Your task to perform on an android device: Open the web browser Image 0: 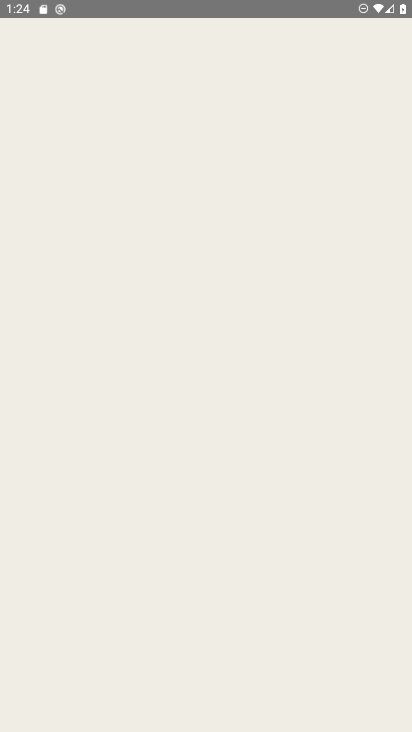
Step 0: click (384, 34)
Your task to perform on an android device: Open the web browser Image 1: 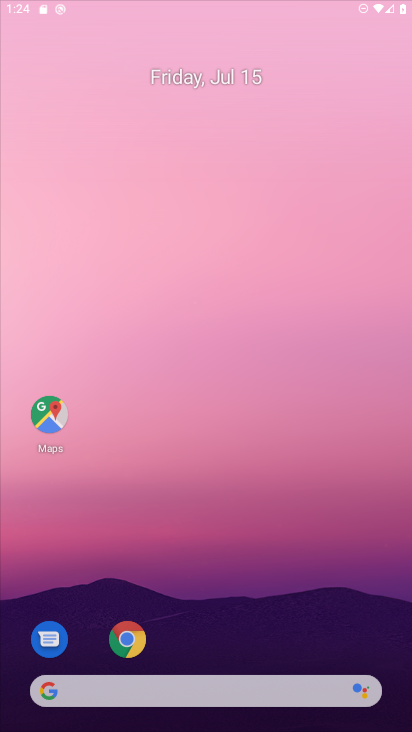
Step 1: click (384, 61)
Your task to perform on an android device: Open the web browser Image 2: 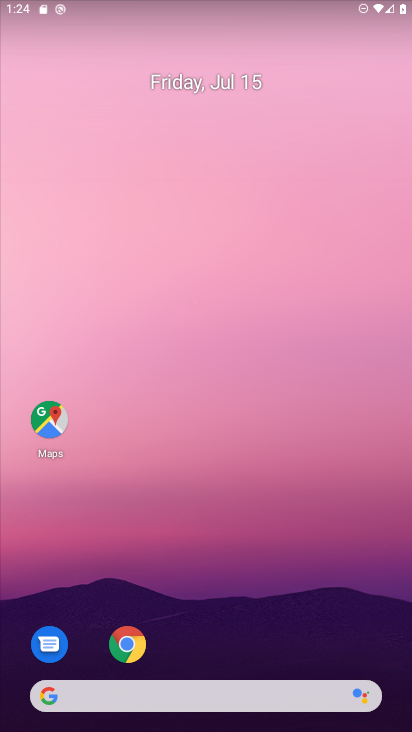
Step 2: click (118, 637)
Your task to perform on an android device: Open the web browser Image 3: 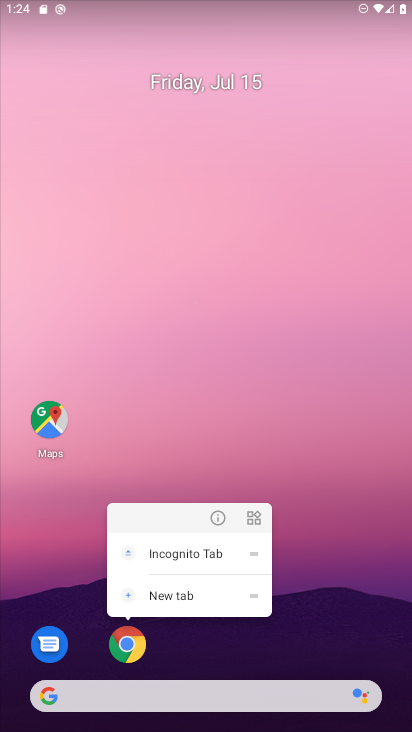
Step 3: click (119, 639)
Your task to perform on an android device: Open the web browser Image 4: 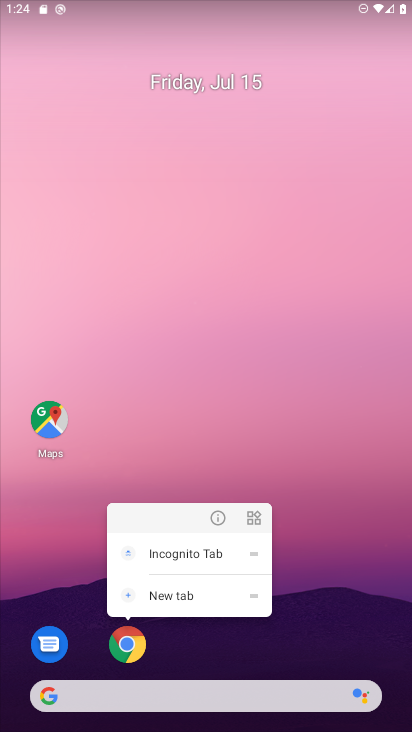
Step 4: click (126, 642)
Your task to perform on an android device: Open the web browser Image 5: 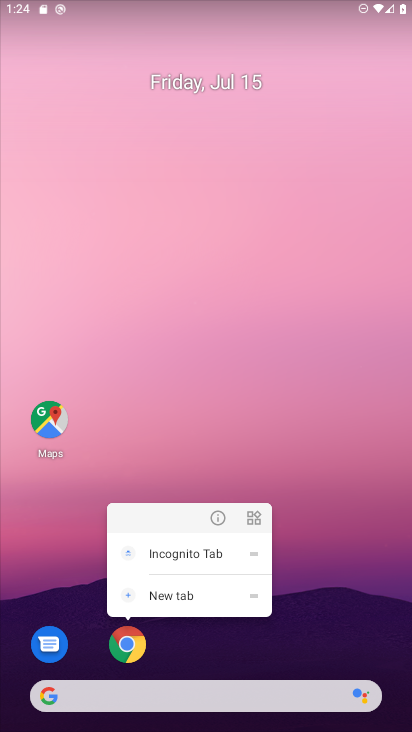
Step 5: click (126, 642)
Your task to perform on an android device: Open the web browser Image 6: 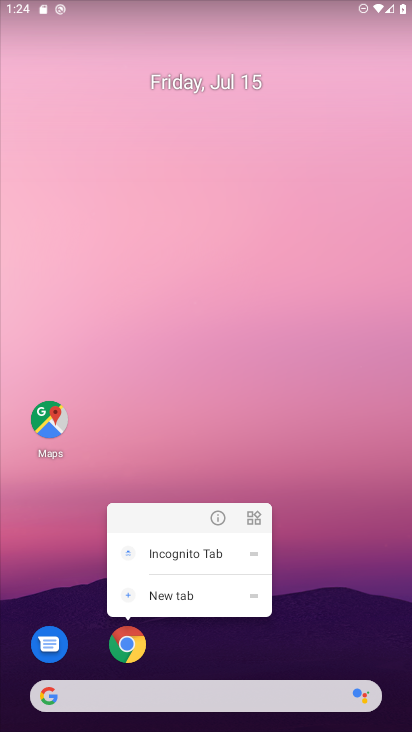
Step 6: click (126, 642)
Your task to perform on an android device: Open the web browser Image 7: 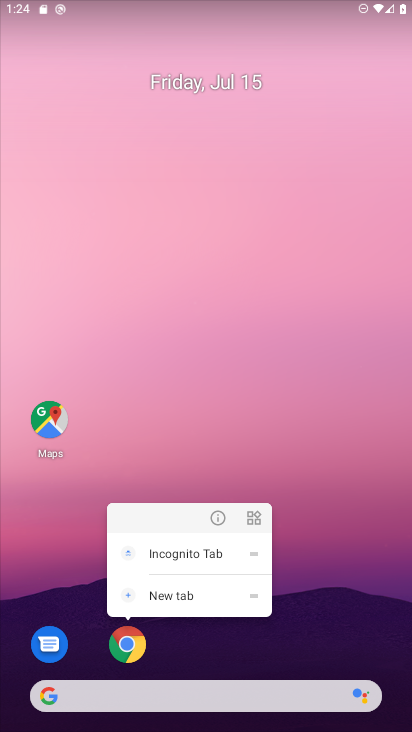
Step 7: click (125, 637)
Your task to perform on an android device: Open the web browser Image 8: 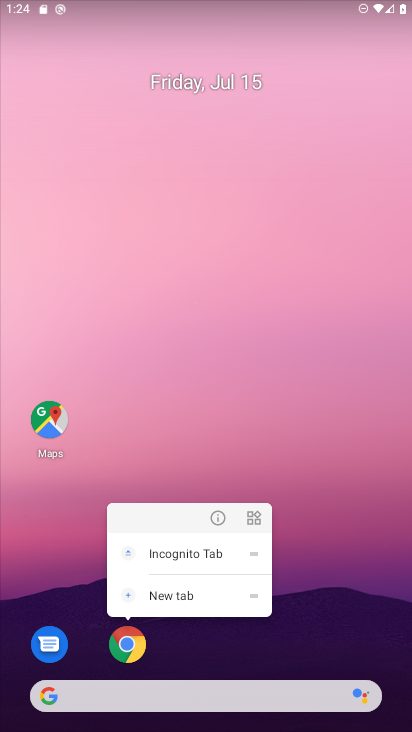
Step 8: click (125, 637)
Your task to perform on an android device: Open the web browser Image 9: 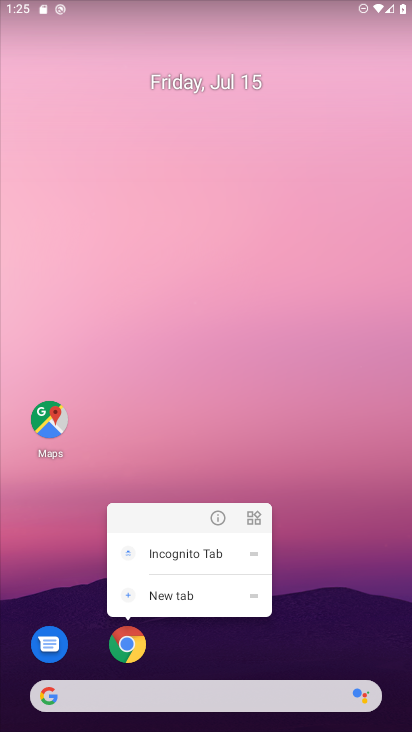
Step 9: click (130, 644)
Your task to perform on an android device: Open the web browser Image 10: 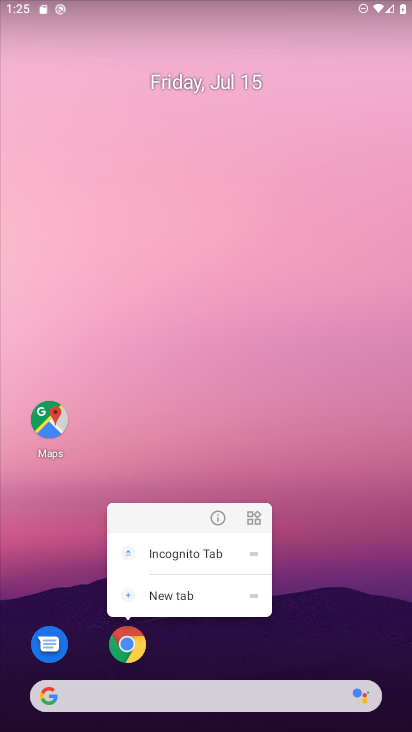
Step 10: click (132, 649)
Your task to perform on an android device: Open the web browser Image 11: 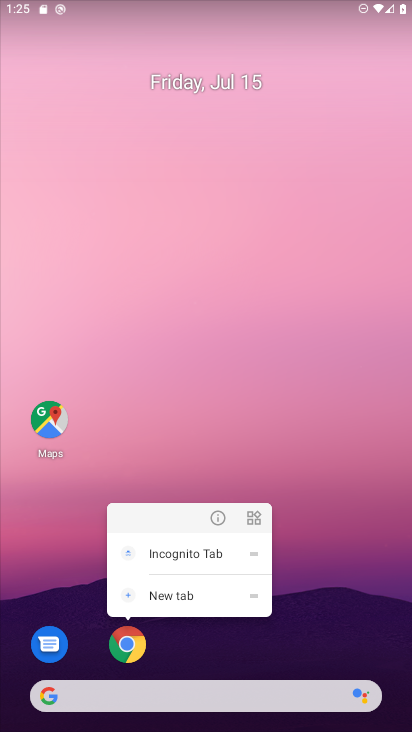
Step 11: click (127, 645)
Your task to perform on an android device: Open the web browser Image 12: 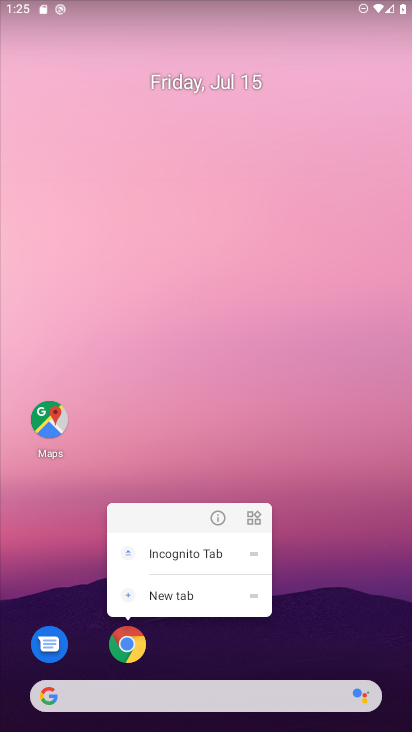
Step 12: click (125, 645)
Your task to perform on an android device: Open the web browser Image 13: 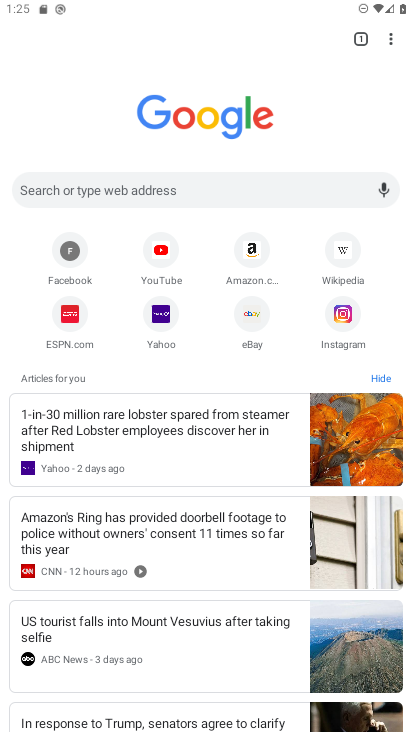
Step 13: task complete